Your task to perform on an android device: Go to Amazon Image 0: 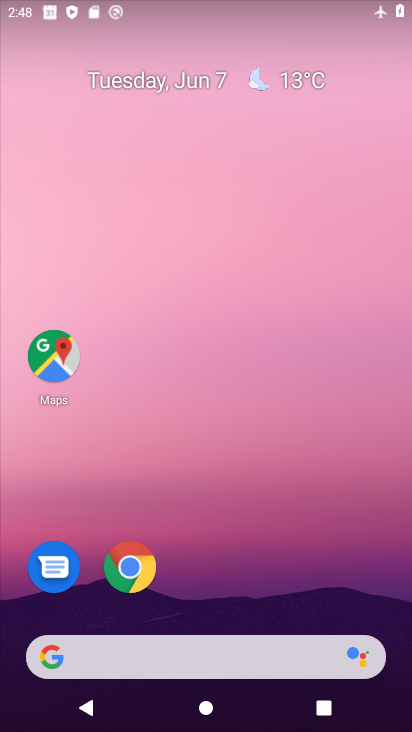
Step 0: click (125, 574)
Your task to perform on an android device: Go to Amazon Image 1: 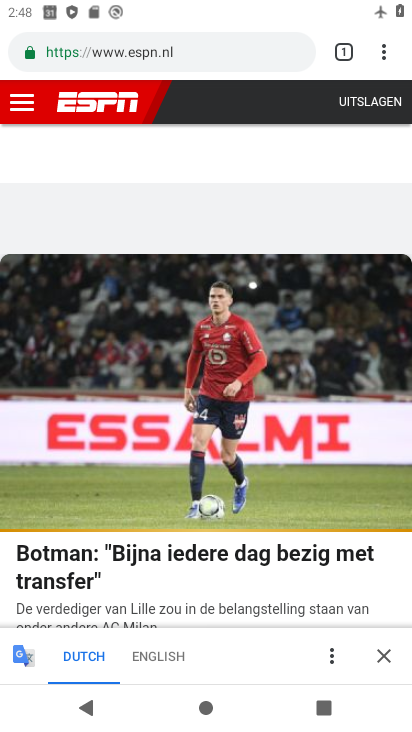
Step 1: click (341, 63)
Your task to perform on an android device: Go to Amazon Image 2: 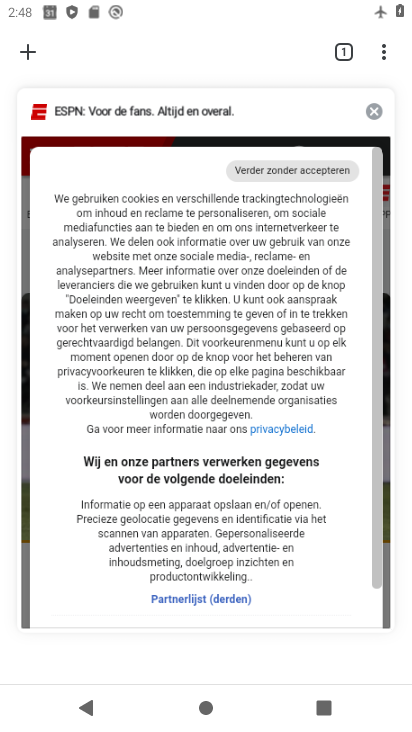
Step 2: click (24, 49)
Your task to perform on an android device: Go to Amazon Image 3: 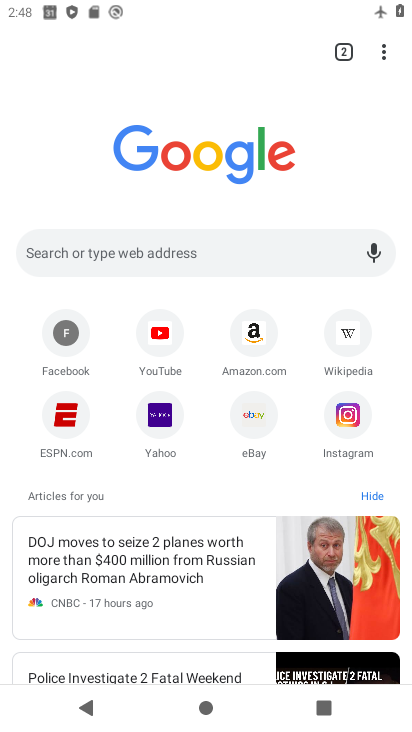
Step 3: click (248, 333)
Your task to perform on an android device: Go to Amazon Image 4: 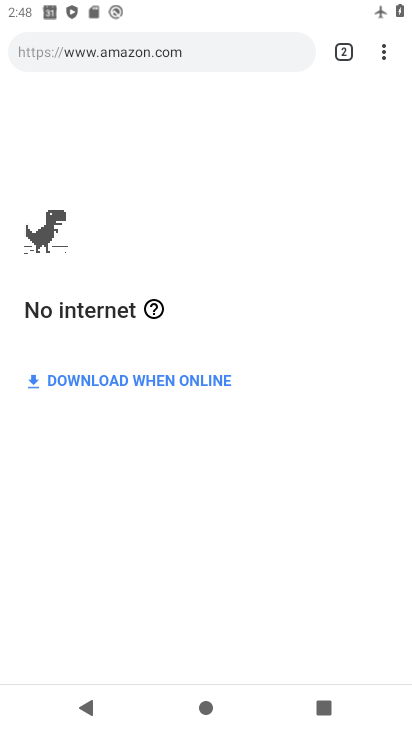
Step 4: drag from (363, 9) to (322, 452)
Your task to perform on an android device: Go to Amazon Image 5: 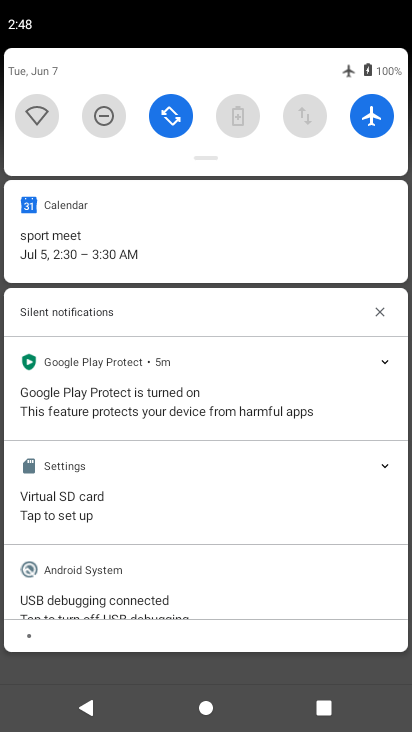
Step 5: click (380, 107)
Your task to perform on an android device: Go to Amazon Image 6: 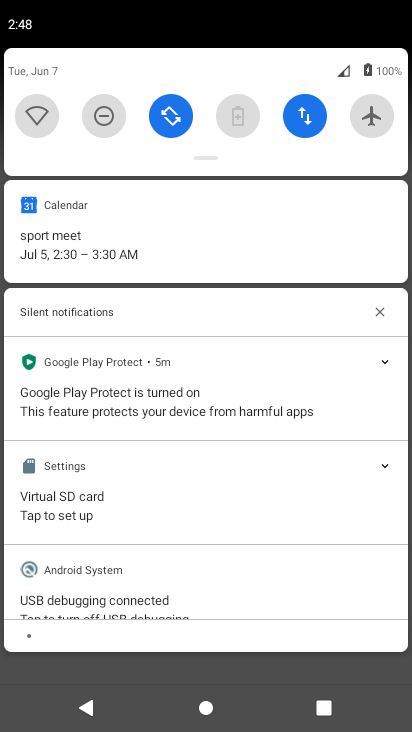
Step 6: click (168, 665)
Your task to perform on an android device: Go to Amazon Image 7: 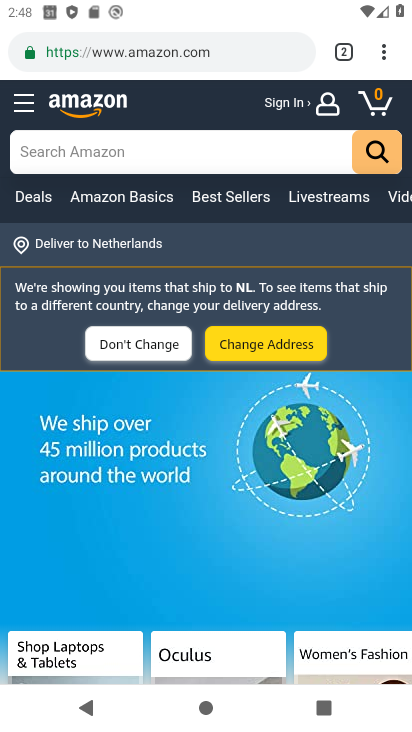
Step 7: task complete